Your task to perform on an android device: find snoozed emails in the gmail app Image 0: 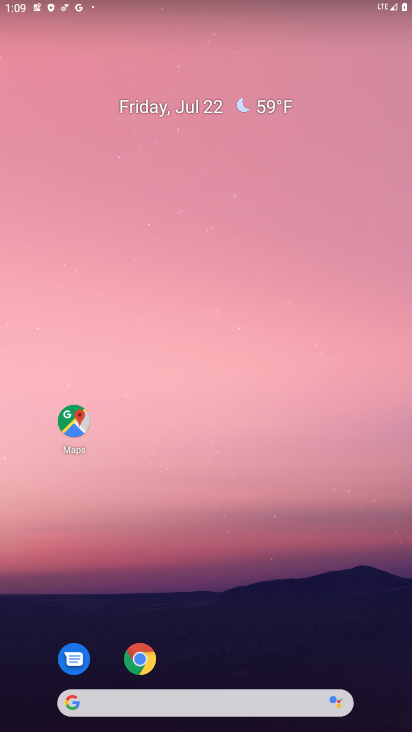
Step 0: drag from (301, 540) to (268, 139)
Your task to perform on an android device: find snoozed emails in the gmail app Image 1: 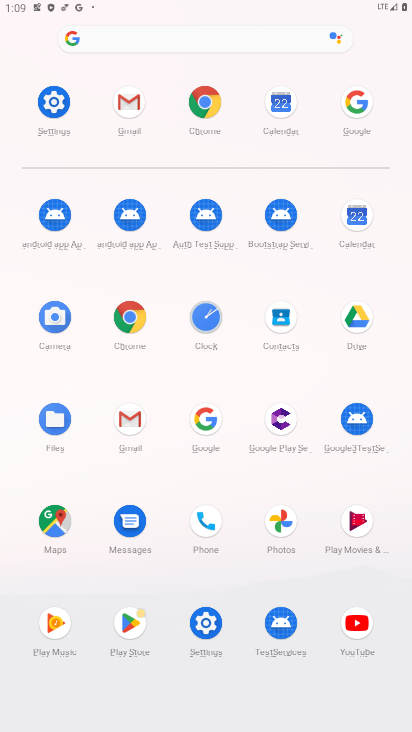
Step 1: click (210, 115)
Your task to perform on an android device: find snoozed emails in the gmail app Image 2: 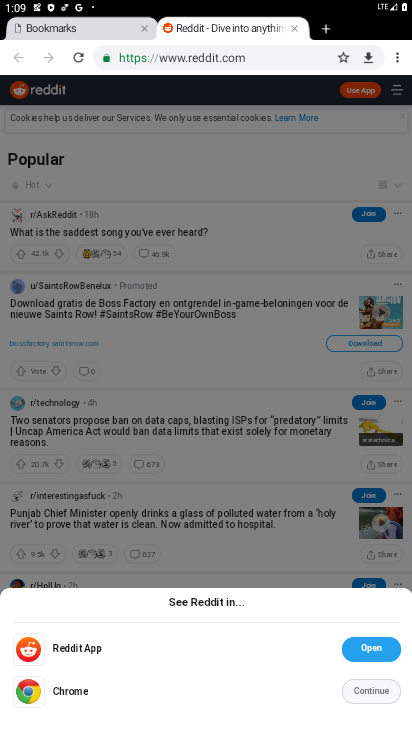
Step 2: press home button
Your task to perform on an android device: find snoozed emails in the gmail app Image 3: 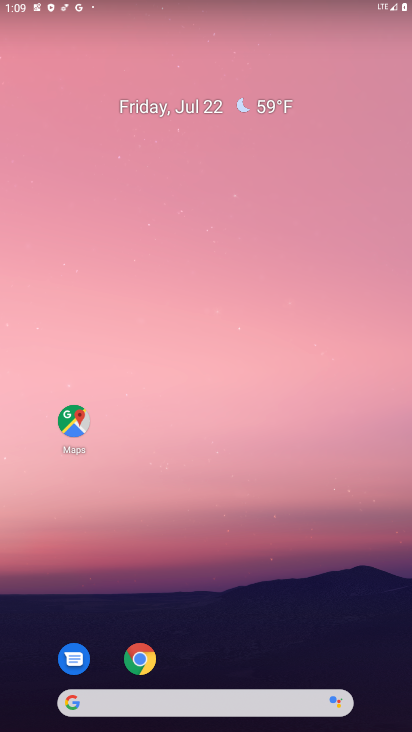
Step 3: drag from (319, 612) to (357, 56)
Your task to perform on an android device: find snoozed emails in the gmail app Image 4: 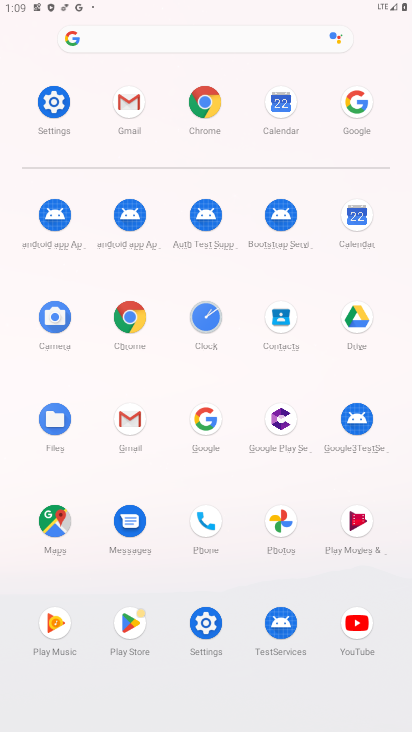
Step 4: click (139, 117)
Your task to perform on an android device: find snoozed emails in the gmail app Image 5: 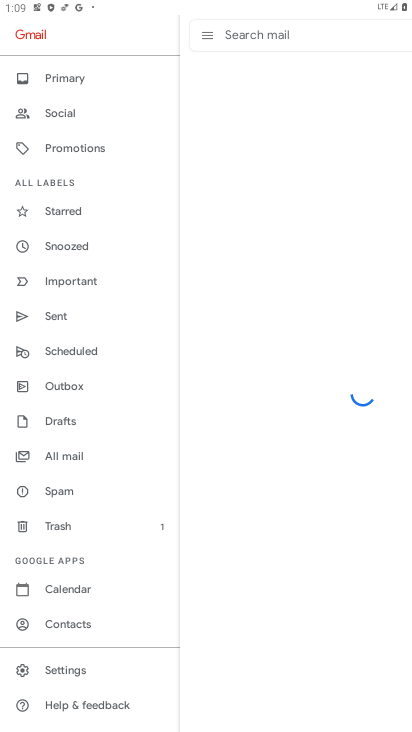
Step 5: click (50, 252)
Your task to perform on an android device: find snoozed emails in the gmail app Image 6: 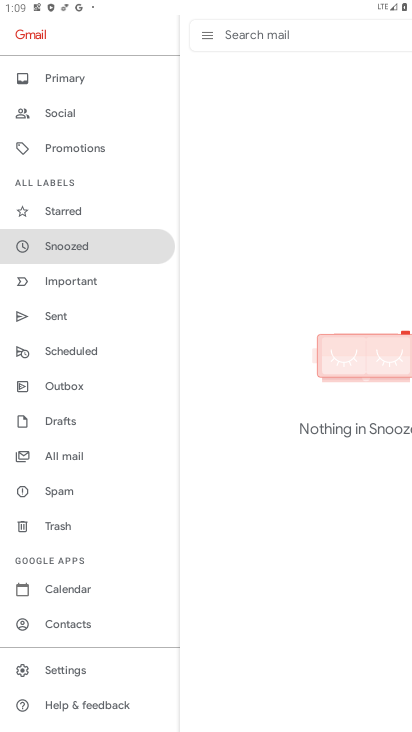
Step 6: task complete